Your task to perform on an android device: empty trash in the gmail app Image 0: 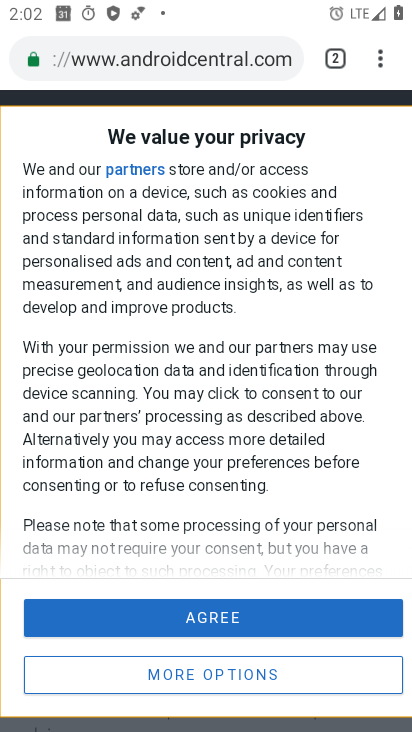
Step 0: press home button
Your task to perform on an android device: empty trash in the gmail app Image 1: 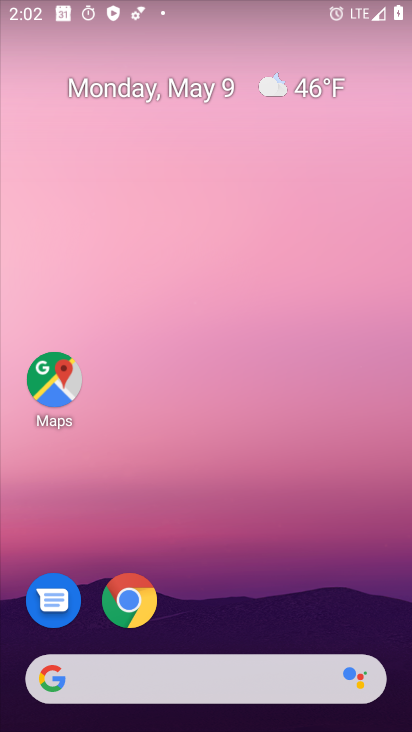
Step 1: drag from (191, 692) to (184, 304)
Your task to perform on an android device: empty trash in the gmail app Image 2: 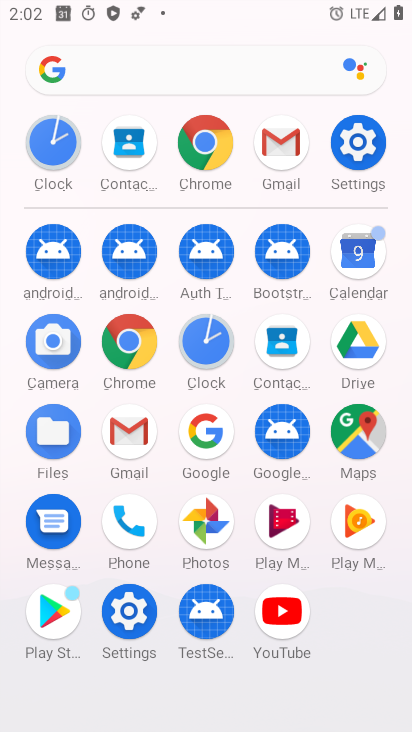
Step 2: click (134, 451)
Your task to perform on an android device: empty trash in the gmail app Image 3: 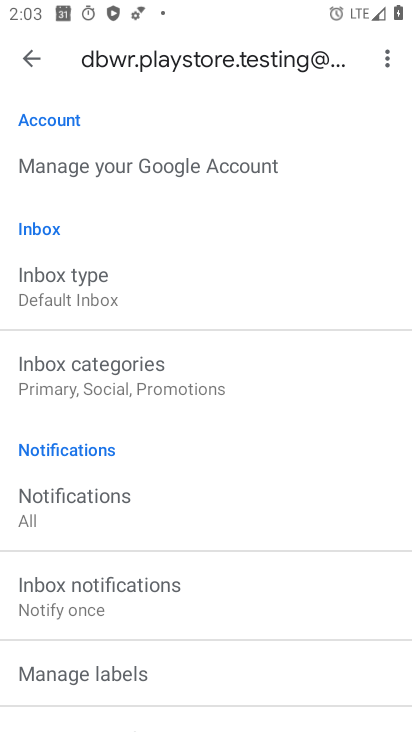
Step 3: press back button
Your task to perform on an android device: empty trash in the gmail app Image 4: 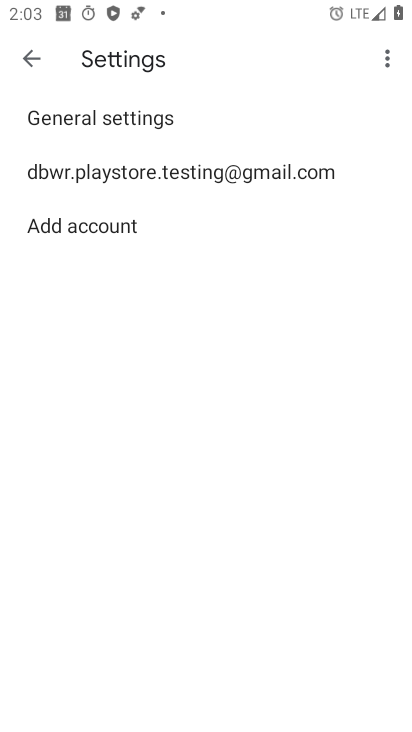
Step 4: click (25, 68)
Your task to perform on an android device: empty trash in the gmail app Image 5: 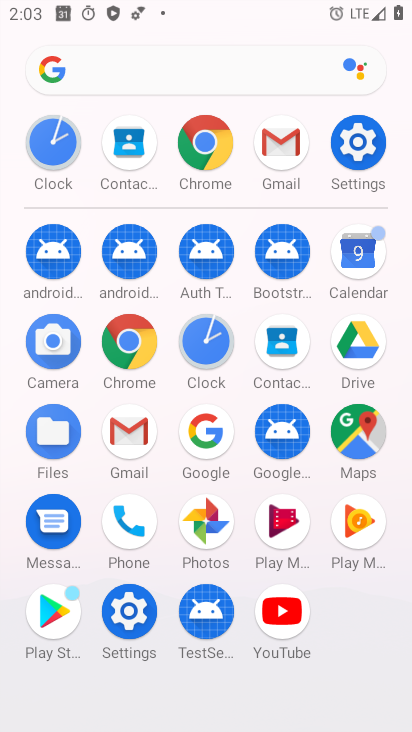
Step 5: click (127, 442)
Your task to perform on an android device: empty trash in the gmail app Image 6: 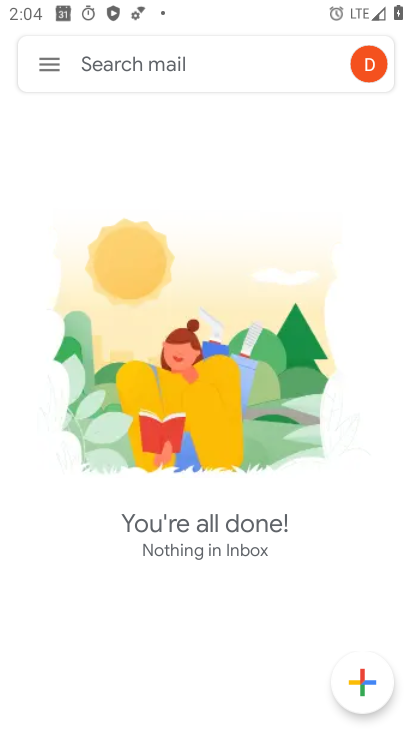
Step 6: click (29, 55)
Your task to perform on an android device: empty trash in the gmail app Image 7: 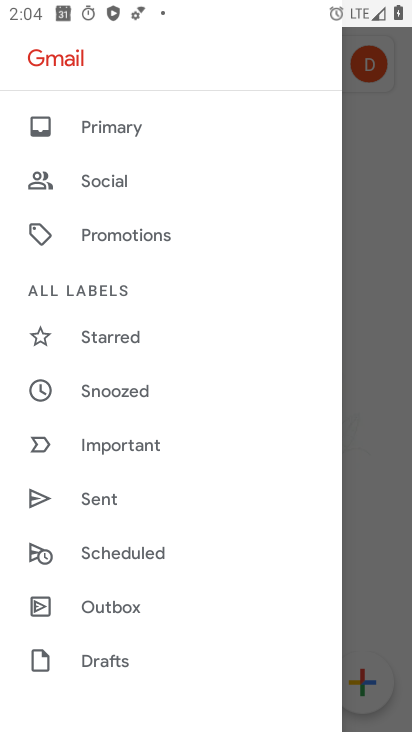
Step 7: drag from (156, 581) to (154, 182)
Your task to perform on an android device: empty trash in the gmail app Image 8: 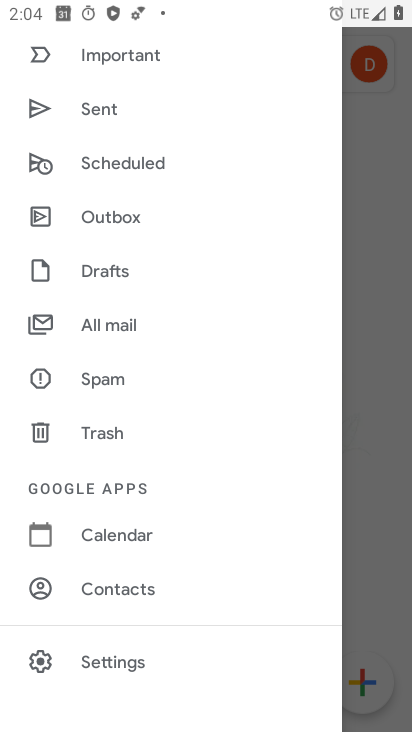
Step 8: click (93, 429)
Your task to perform on an android device: empty trash in the gmail app Image 9: 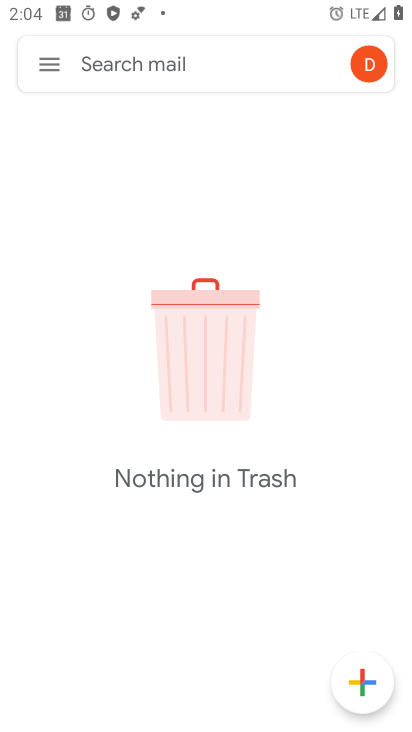
Step 9: task complete